Your task to perform on an android device: Show the shopping cart on costco. Image 0: 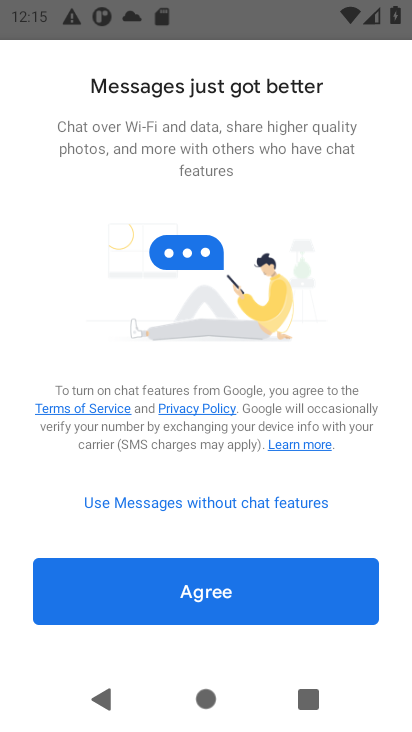
Step 0: press home button
Your task to perform on an android device: Show the shopping cart on costco. Image 1: 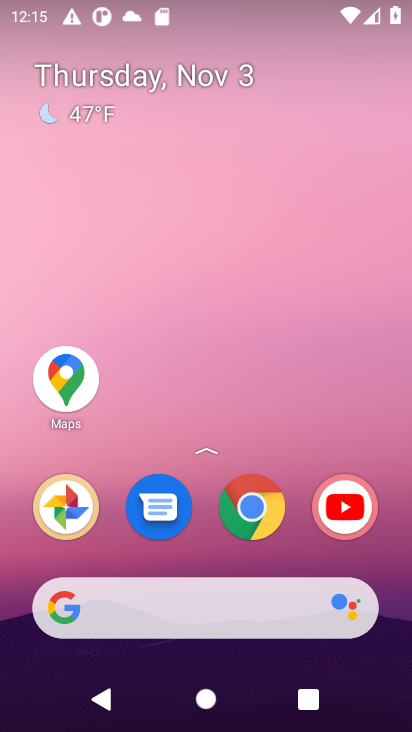
Step 1: click (234, 649)
Your task to perform on an android device: Show the shopping cart on costco. Image 2: 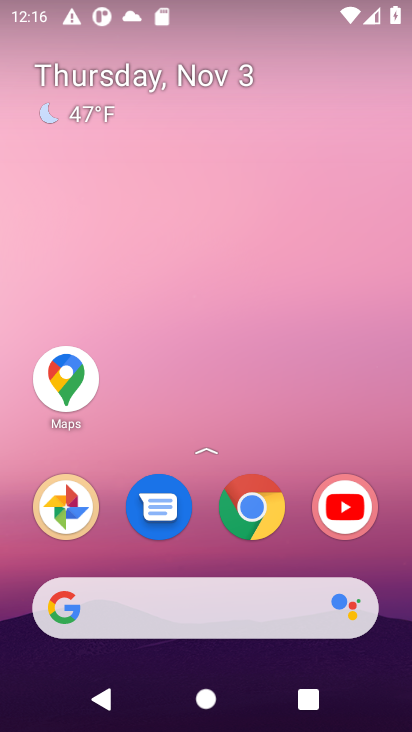
Step 2: click (129, 641)
Your task to perform on an android device: Show the shopping cart on costco. Image 3: 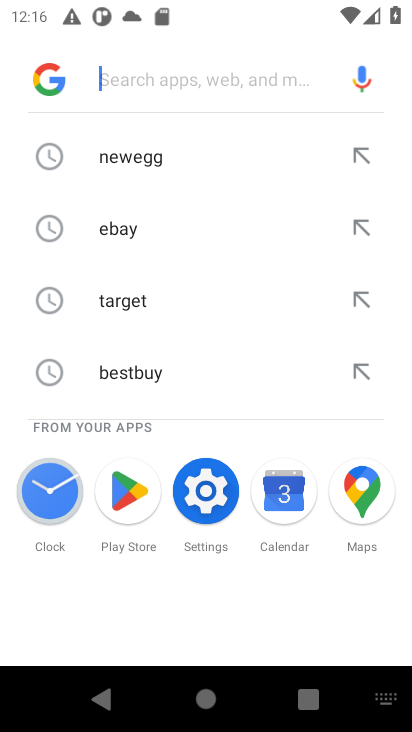
Step 3: click (139, 632)
Your task to perform on an android device: Show the shopping cart on costco. Image 4: 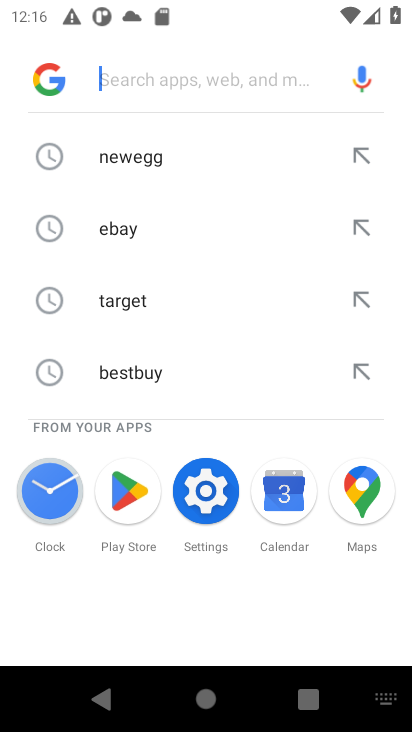
Step 4: type "costco"
Your task to perform on an android device: Show the shopping cart on costco. Image 5: 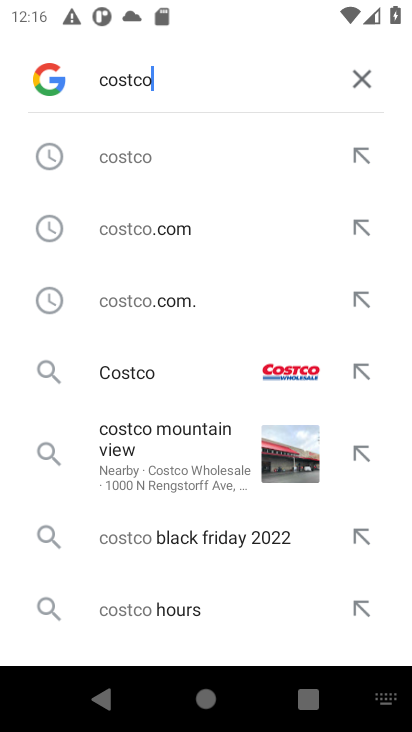
Step 5: click (164, 147)
Your task to perform on an android device: Show the shopping cart on costco. Image 6: 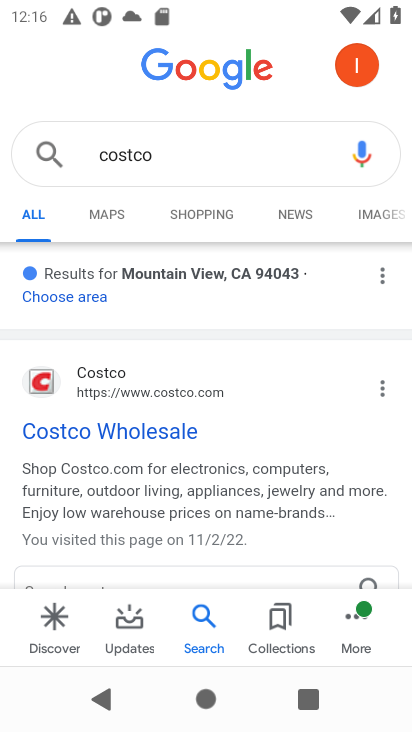
Step 6: click (110, 417)
Your task to perform on an android device: Show the shopping cart on costco. Image 7: 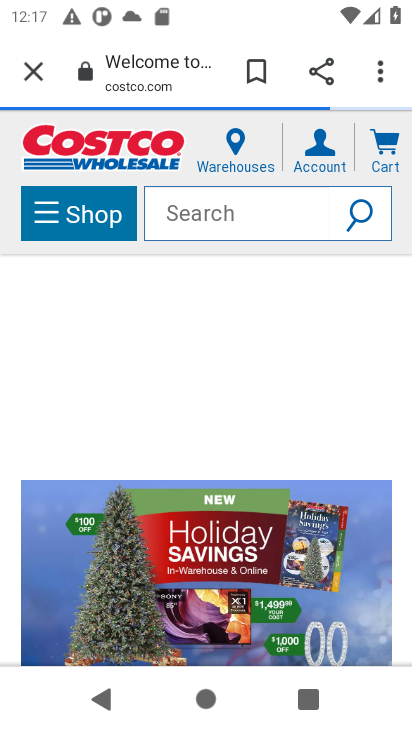
Step 7: task complete